Your task to perform on an android device: open app "Messenger Lite" (install if not already installed) and go to login screen Image 0: 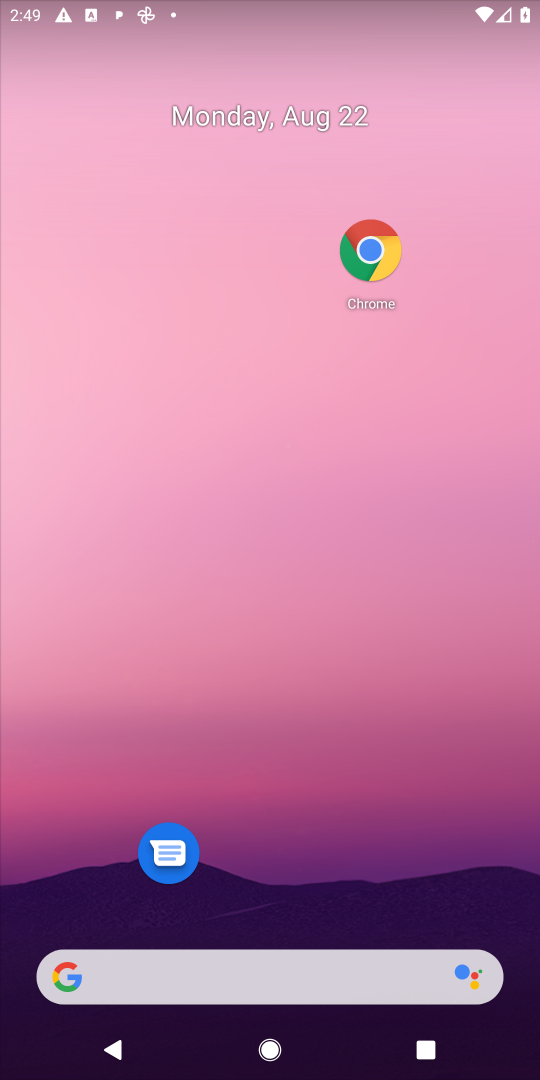
Step 0: drag from (323, 888) to (285, 556)
Your task to perform on an android device: open app "Messenger Lite" (install if not already installed) and go to login screen Image 1: 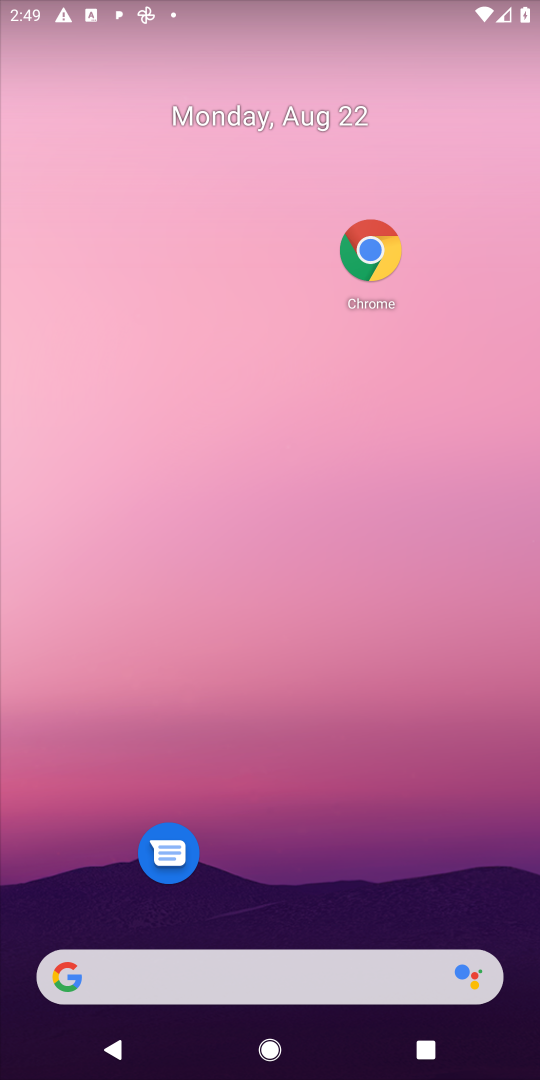
Step 1: drag from (329, 903) to (326, 344)
Your task to perform on an android device: open app "Messenger Lite" (install if not already installed) and go to login screen Image 2: 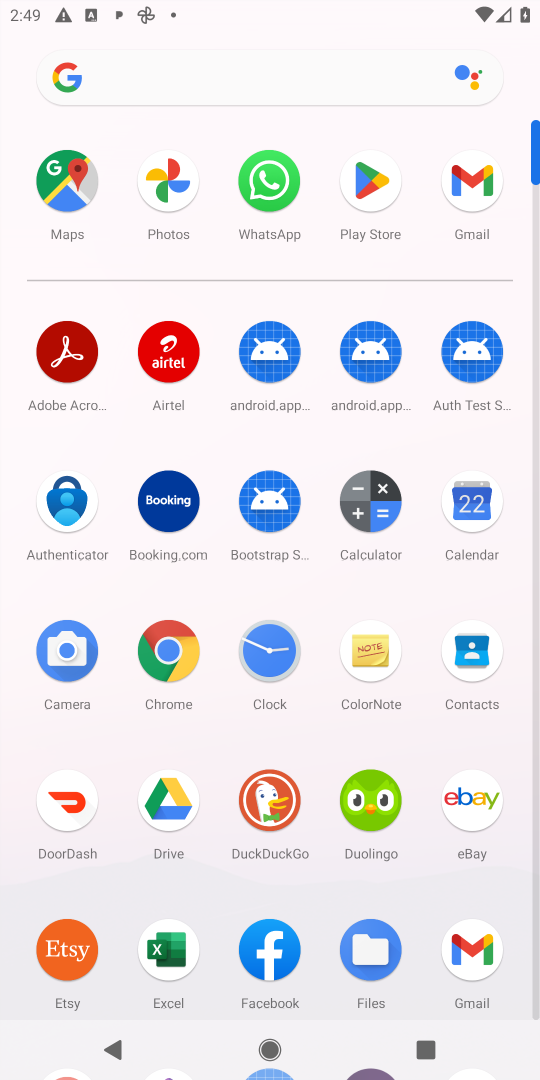
Step 2: click (379, 171)
Your task to perform on an android device: open app "Messenger Lite" (install if not already installed) and go to login screen Image 3: 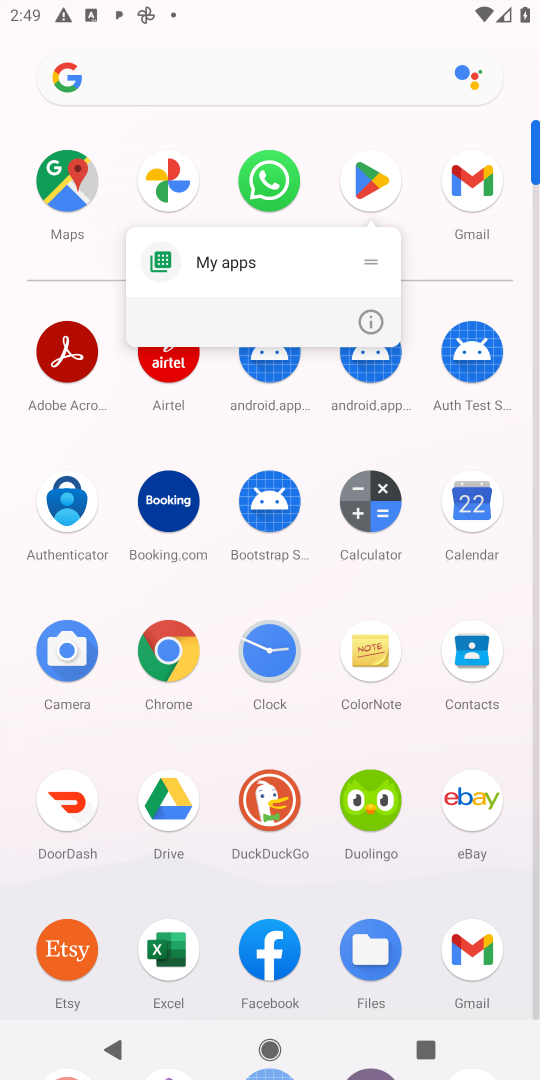
Step 3: click (372, 178)
Your task to perform on an android device: open app "Messenger Lite" (install if not already installed) and go to login screen Image 4: 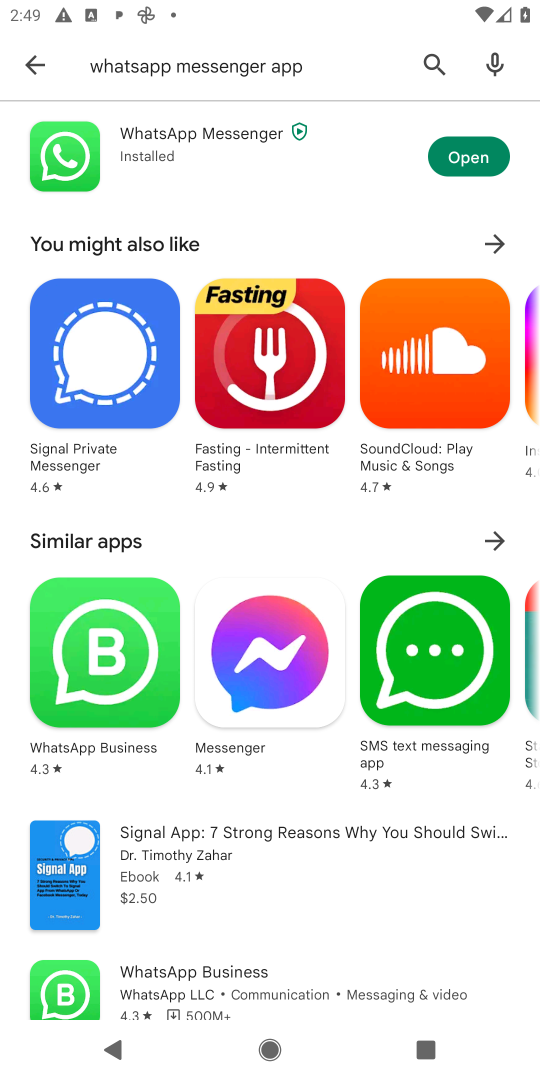
Step 4: click (36, 50)
Your task to perform on an android device: open app "Messenger Lite" (install if not already installed) and go to login screen Image 5: 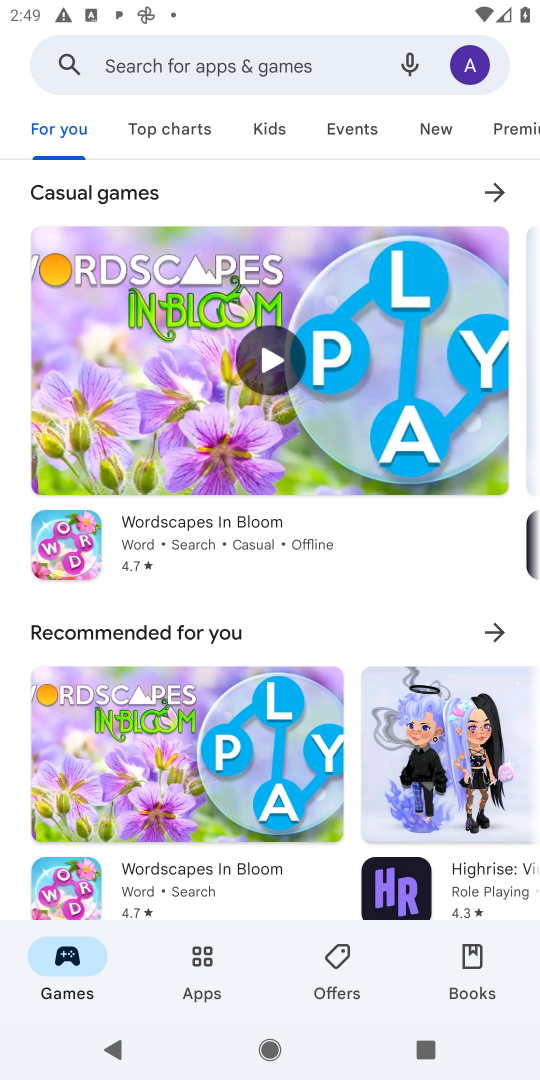
Step 5: click (148, 53)
Your task to perform on an android device: open app "Messenger Lite" (install if not already installed) and go to login screen Image 6: 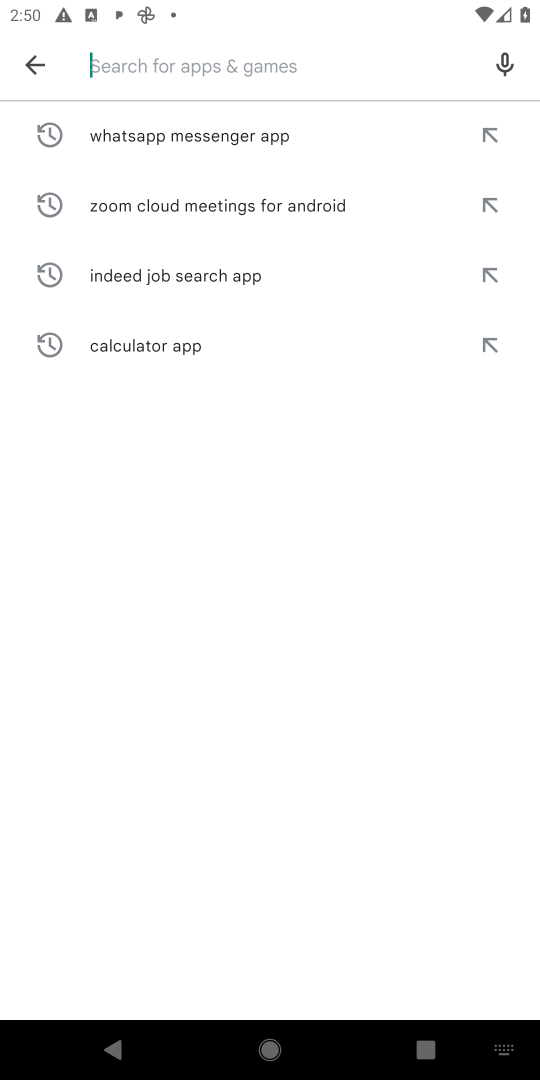
Step 6: click (237, 65)
Your task to perform on an android device: open app "Messenger Lite" (install if not already installed) and go to login screen Image 7: 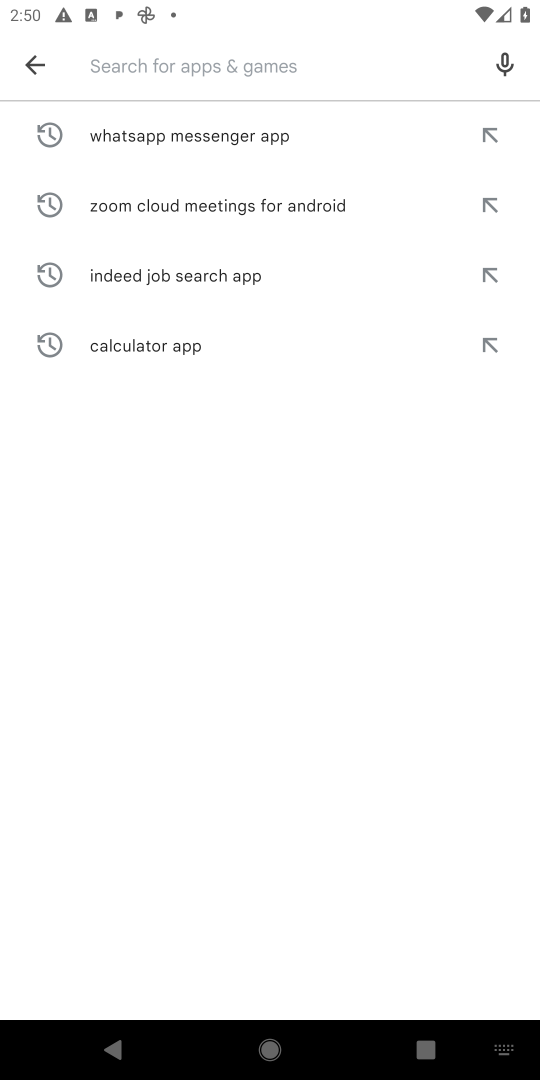
Step 7: type "Messenger Lite "
Your task to perform on an android device: open app "Messenger Lite" (install if not already installed) and go to login screen Image 8: 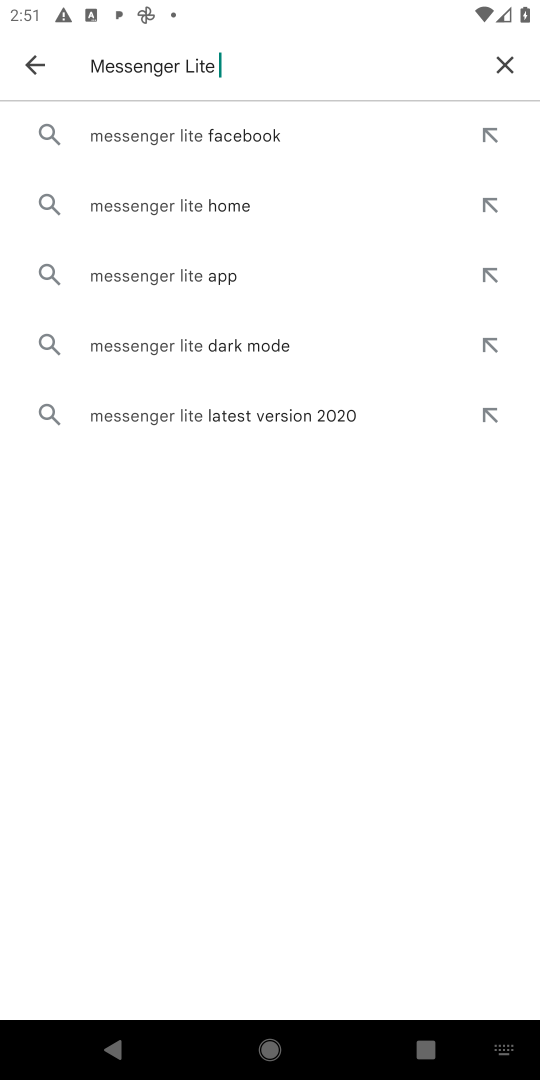
Step 8: click (210, 152)
Your task to perform on an android device: open app "Messenger Lite" (install if not already installed) and go to login screen Image 9: 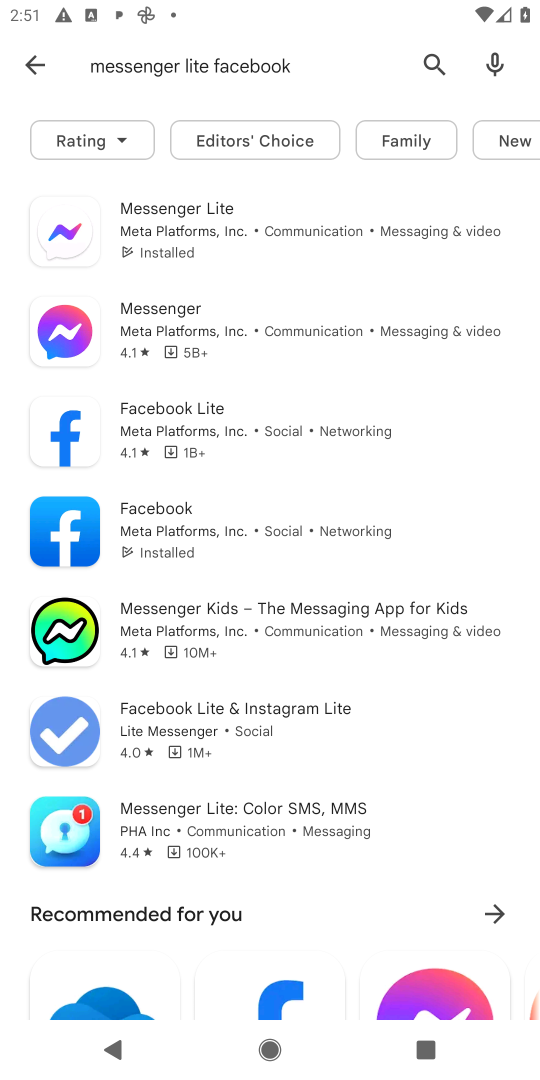
Step 9: click (285, 231)
Your task to perform on an android device: open app "Messenger Lite" (install if not already installed) and go to login screen Image 10: 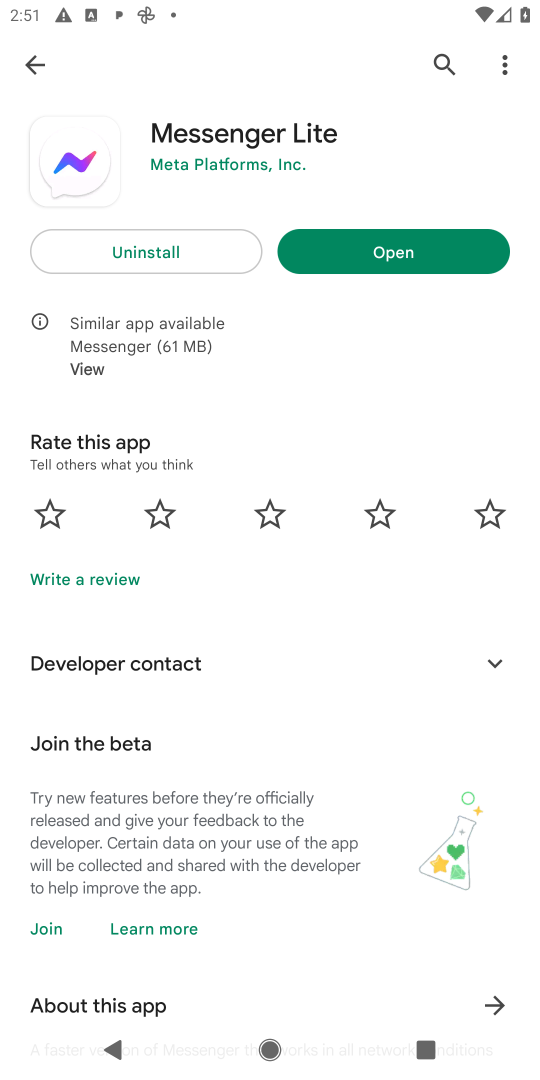
Step 10: click (381, 224)
Your task to perform on an android device: open app "Messenger Lite" (install if not already installed) and go to login screen Image 11: 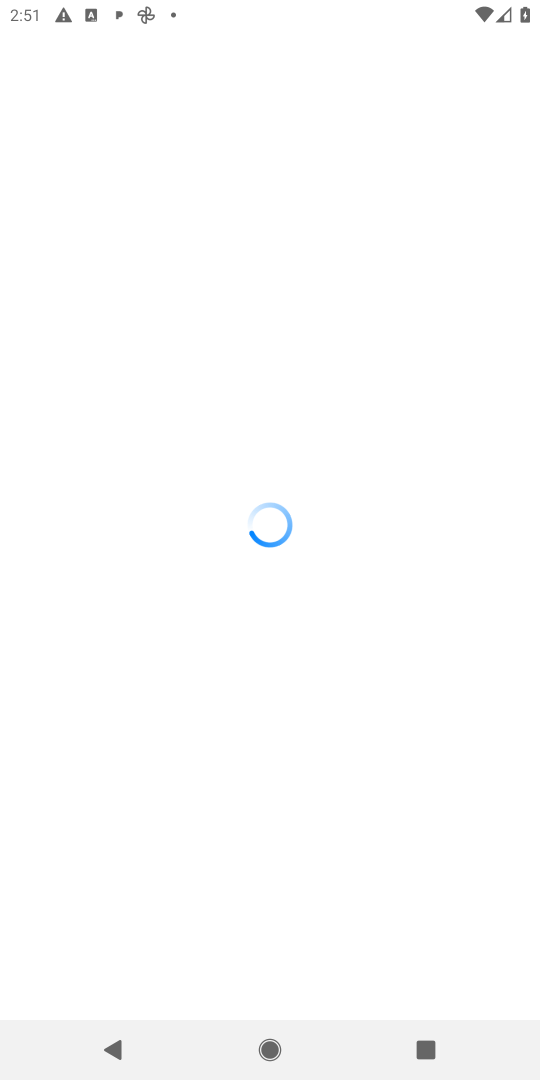
Step 11: task complete